Your task to perform on an android device: create a new album in the google photos Image 0: 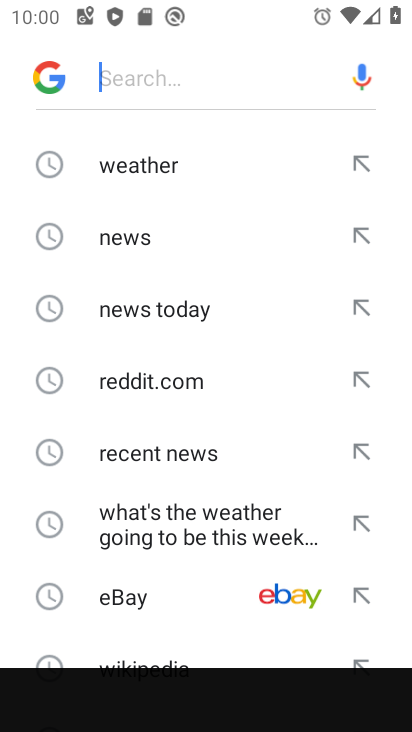
Step 0: press home button
Your task to perform on an android device: create a new album in the google photos Image 1: 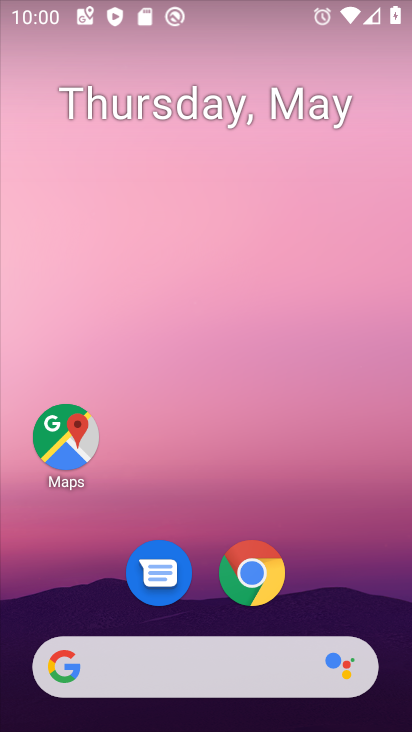
Step 1: drag from (199, 611) to (247, 244)
Your task to perform on an android device: create a new album in the google photos Image 2: 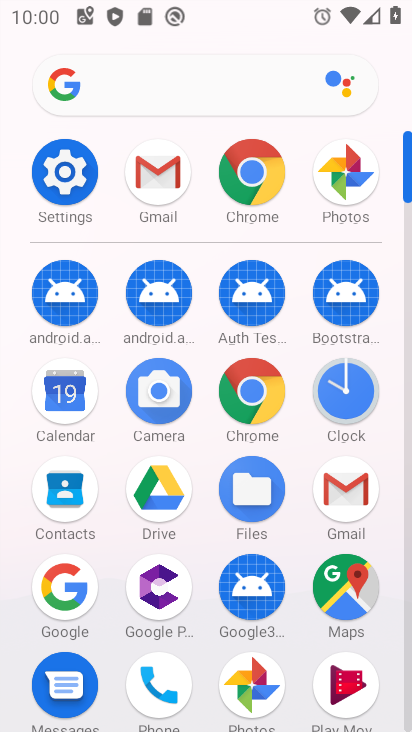
Step 2: click (231, 695)
Your task to perform on an android device: create a new album in the google photos Image 3: 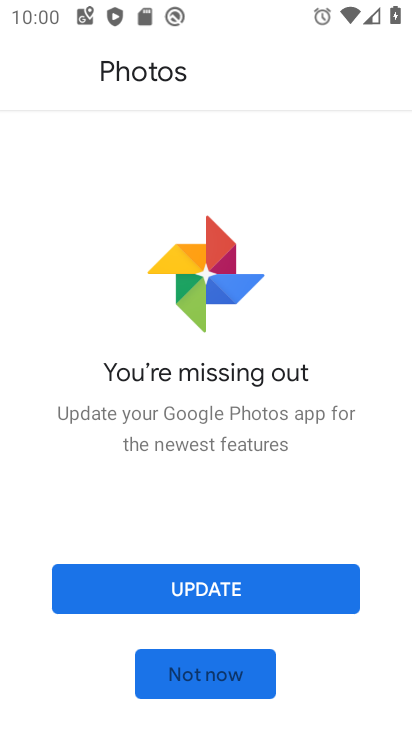
Step 3: click (208, 674)
Your task to perform on an android device: create a new album in the google photos Image 4: 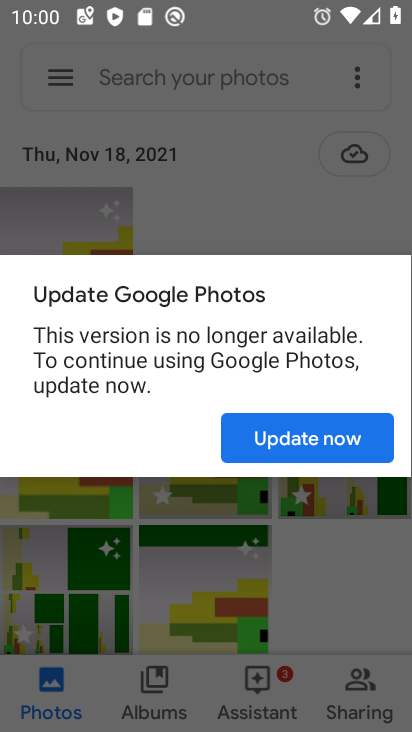
Step 4: click (287, 447)
Your task to perform on an android device: create a new album in the google photos Image 5: 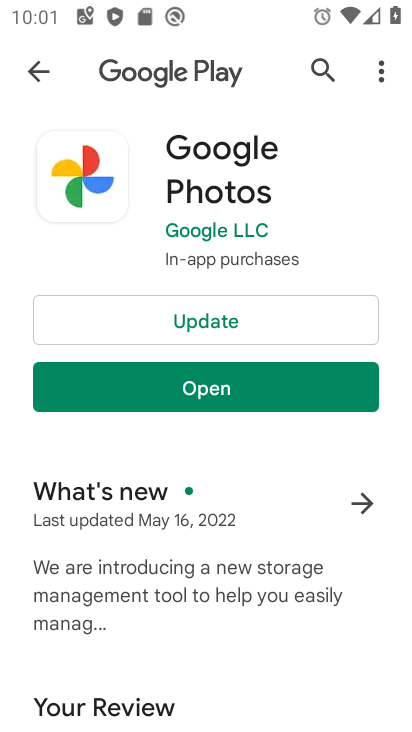
Step 5: click (241, 392)
Your task to perform on an android device: create a new album in the google photos Image 6: 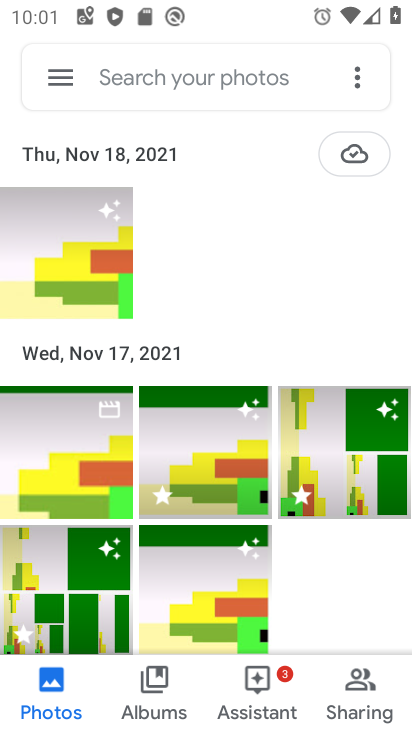
Step 6: click (357, 79)
Your task to perform on an android device: create a new album in the google photos Image 7: 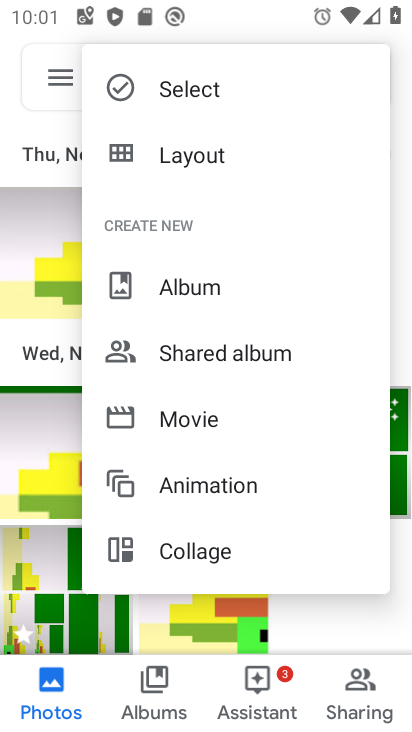
Step 7: click (166, 275)
Your task to perform on an android device: create a new album in the google photos Image 8: 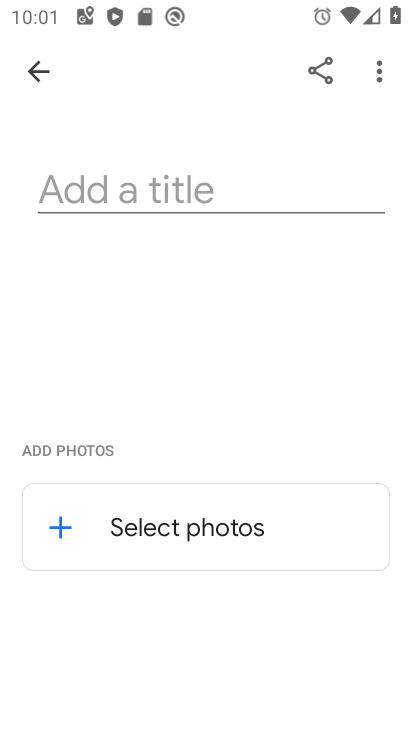
Step 8: click (109, 197)
Your task to perform on an android device: create a new album in the google photos Image 9: 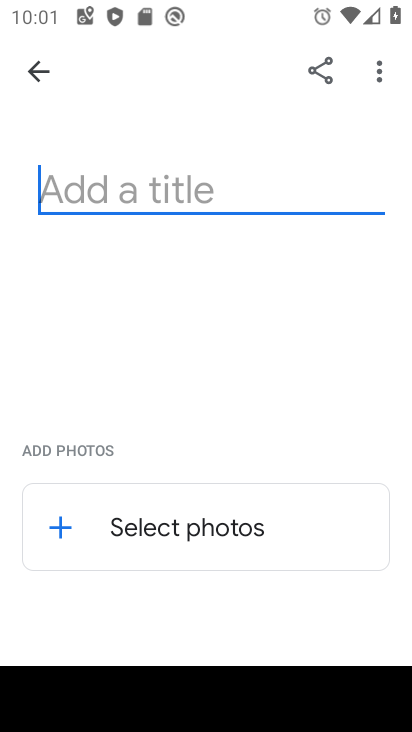
Step 9: type "ngnfgn"
Your task to perform on an android device: create a new album in the google photos Image 10: 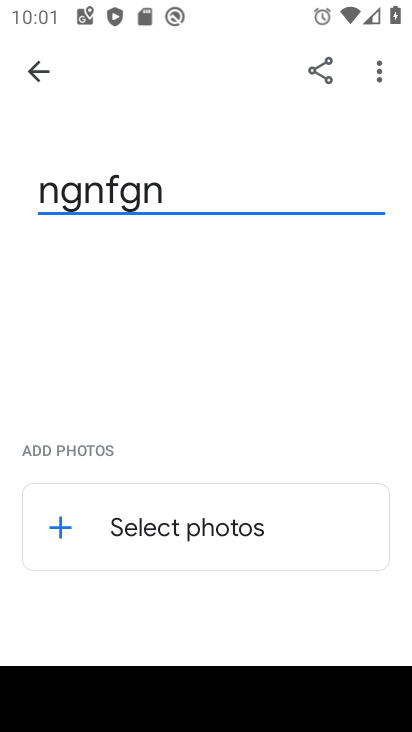
Step 10: click (62, 519)
Your task to perform on an android device: create a new album in the google photos Image 11: 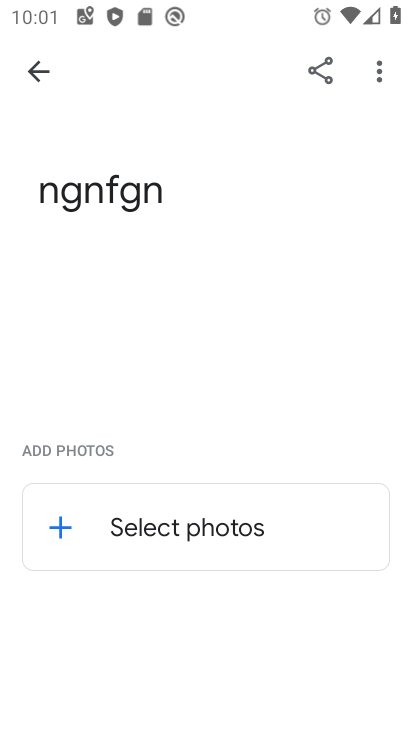
Step 11: click (62, 519)
Your task to perform on an android device: create a new album in the google photos Image 12: 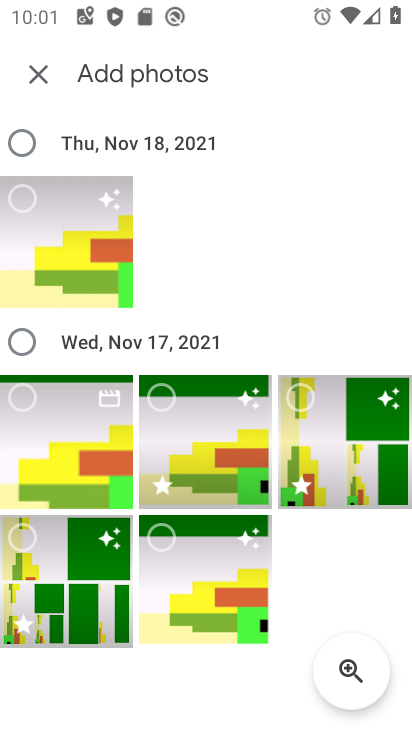
Step 12: click (54, 426)
Your task to perform on an android device: create a new album in the google photos Image 13: 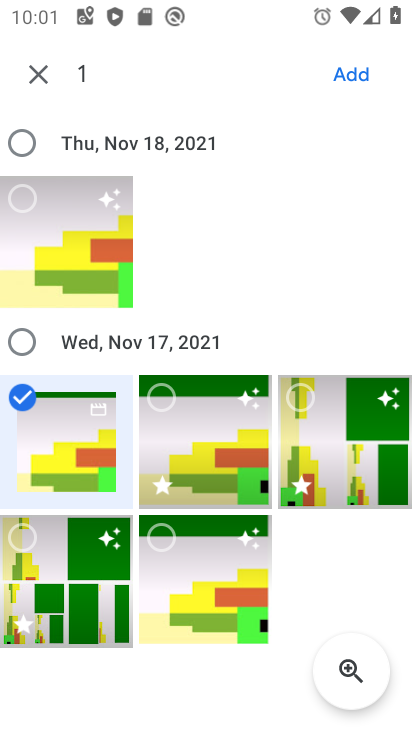
Step 13: click (73, 249)
Your task to perform on an android device: create a new album in the google photos Image 14: 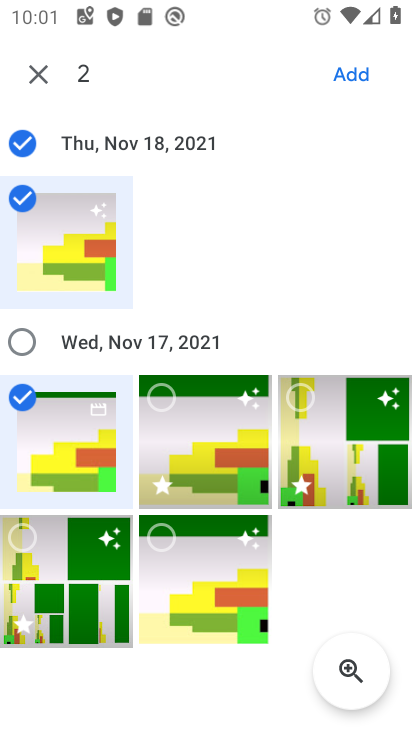
Step 14: click (346, 80)
Your task to perform on an android device: create a new album in the google photos Image 15: 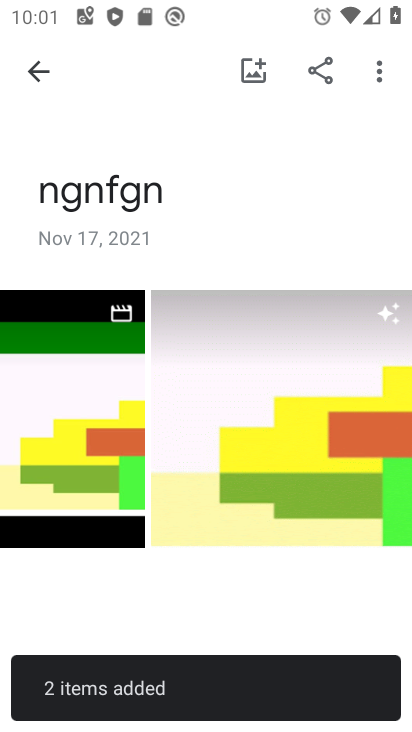
Step 15: task complete